Your task to perform on an android device: Open ESPN.com Image 0: 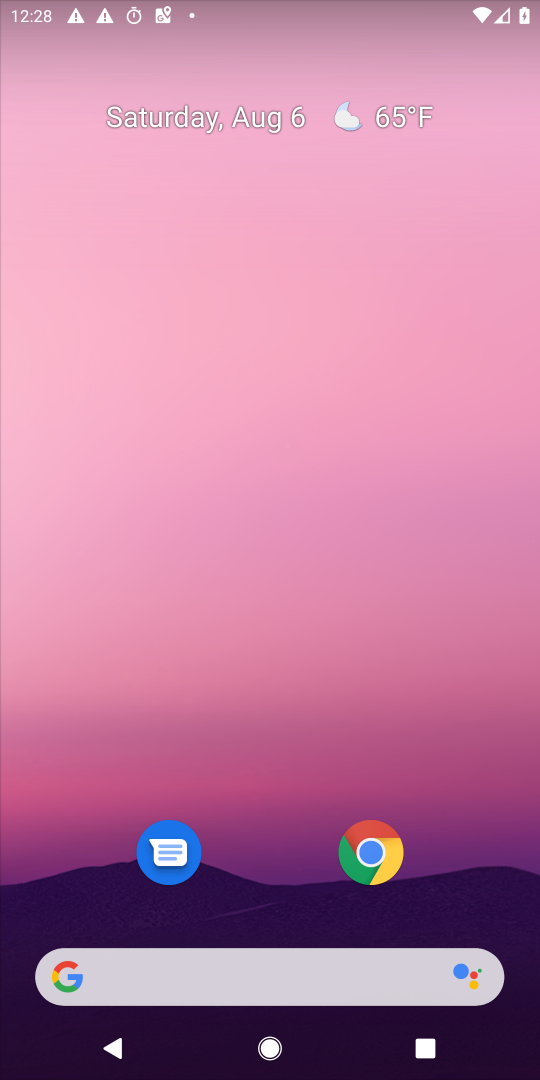
Step 0: drag from (382, 1008) to (246, 278)
Your task to perform on an android device: Open ESPN.com Image 1: 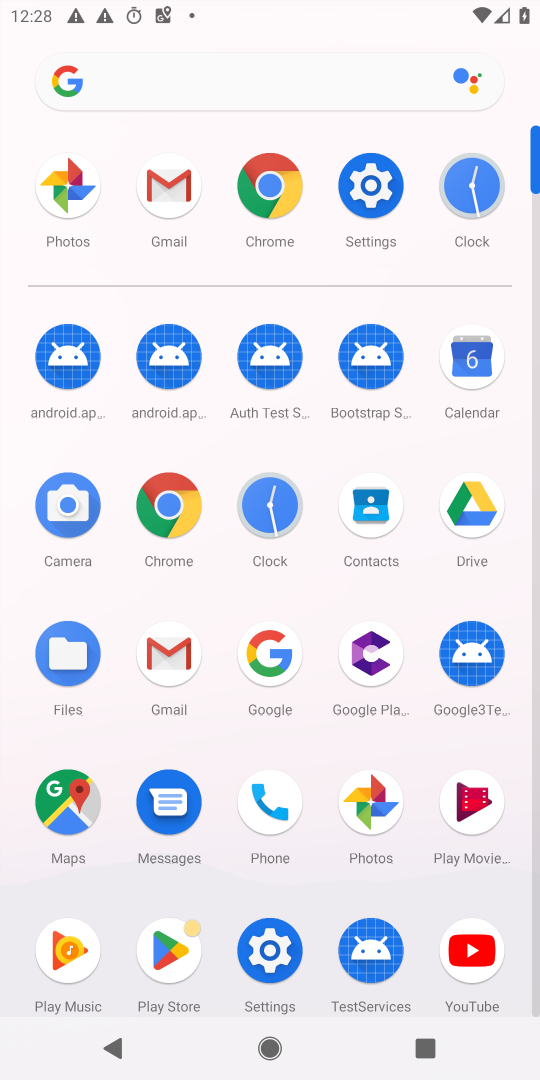
Step 1: click (267, 176)
Your task to perform on an android device: Open ESPN.com Image 2: 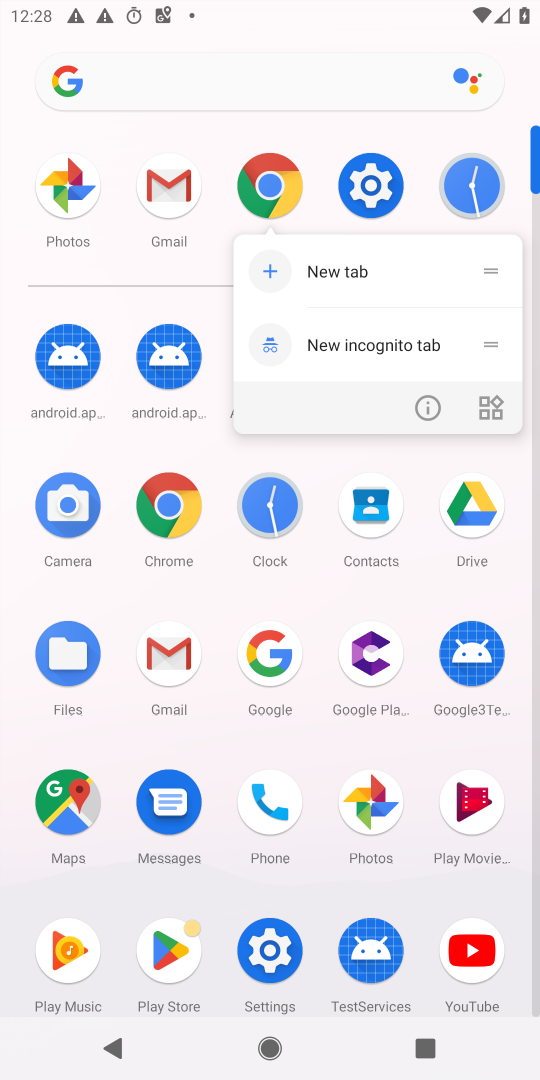
Step 2: click (272, 171)
Your task to perform on an android device: Open ESPN.com Image 3: 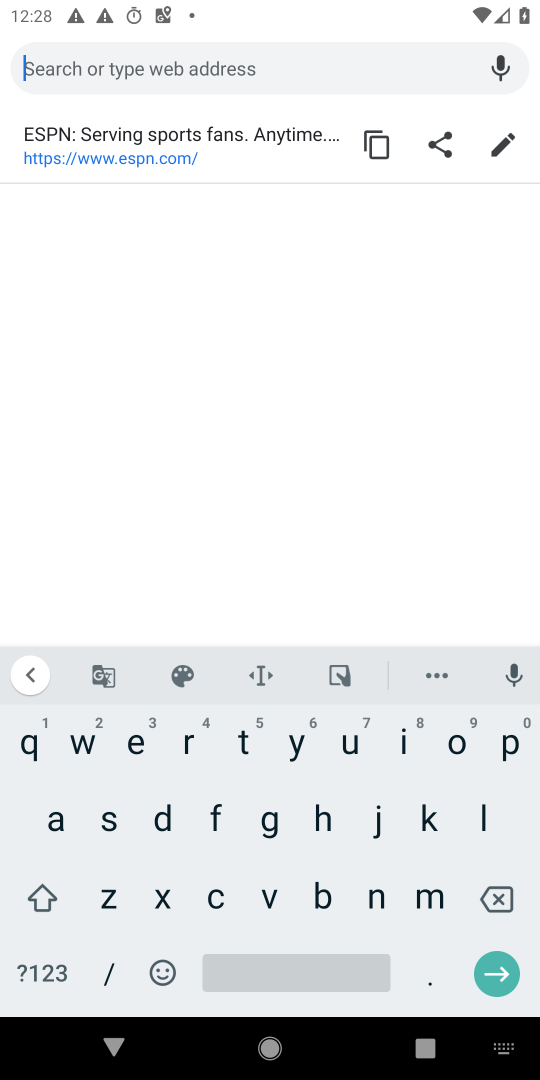
Step 3: click (176, 127)
Your task to perform on an android device: Open ESPN.com Image 4: 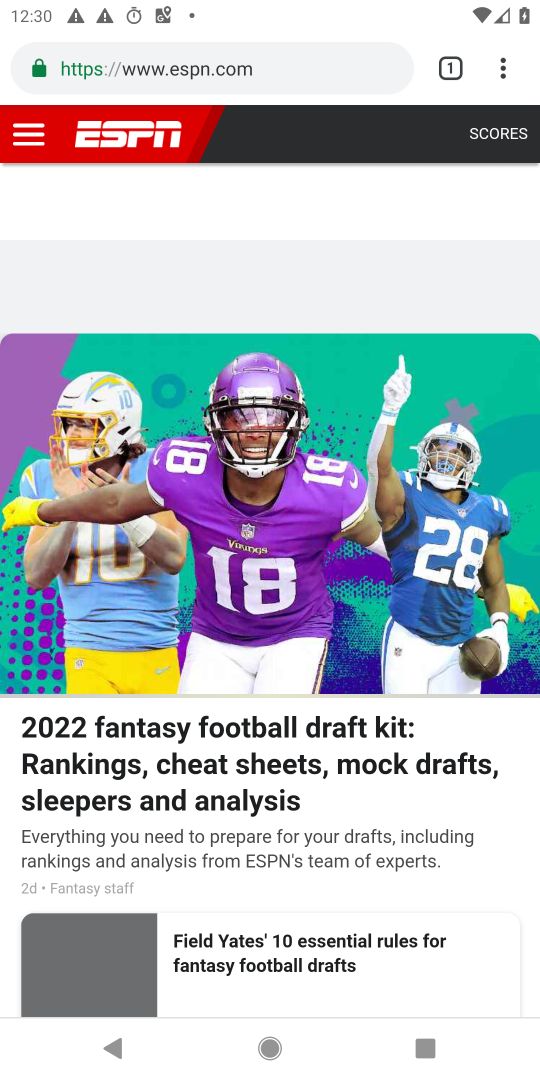
Step 4: task complete